Your task to perform on an android device: move a message to another label in the gmail app Image 0: 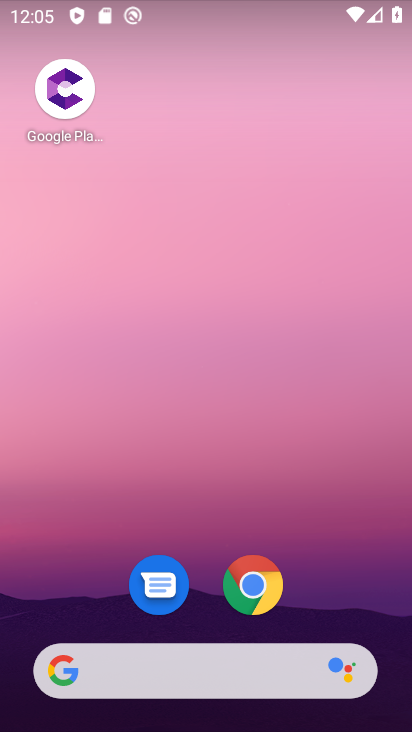
Step 0: drag from (203, 490) to (260, 25)
Your task to perform on an android device: move a message to another label in the gmail app Image 1: 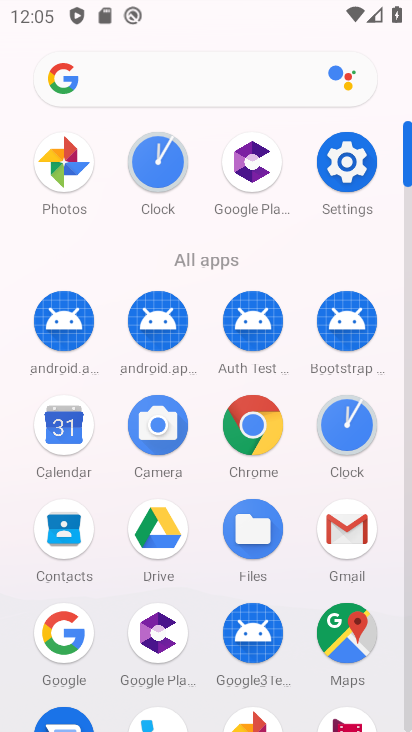
Step 1: click (340, 533)
Your task to perform on an android device: move a message to another label in the gmail app Image 2: 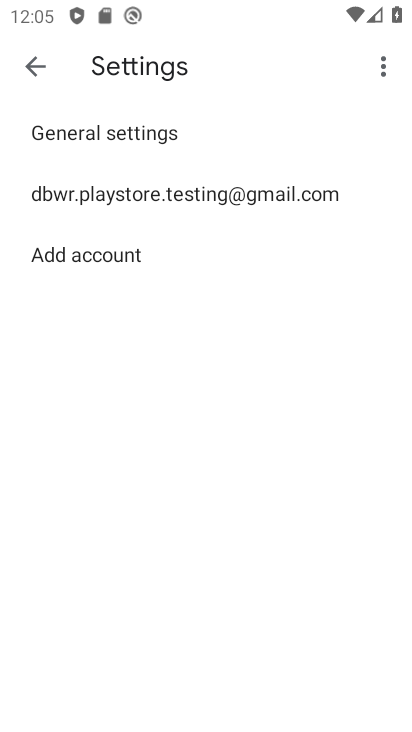
Step 2: click (41, 64)
Your task to perform on an android device: move a message to another label in the gmail app Image 3: 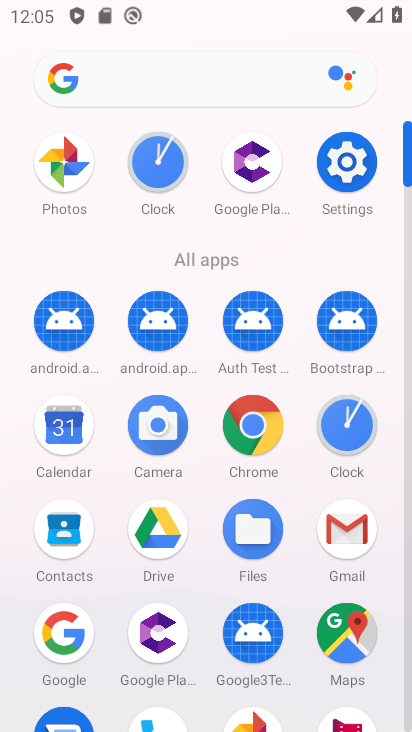
Step 3: click (335, 532)
Your task to perform on an android device: move a message to another label in the gmail app Image 4: 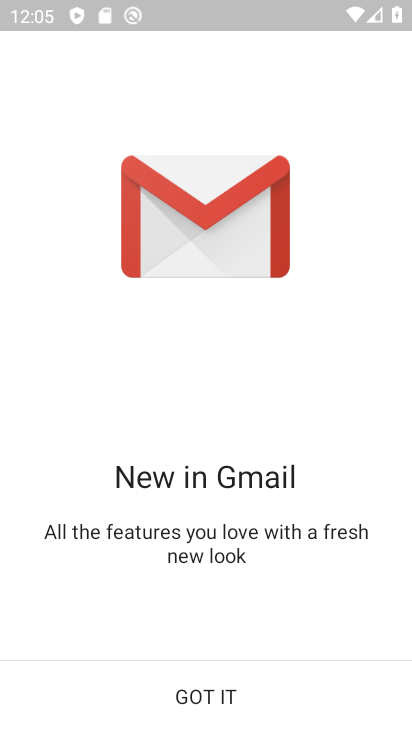
Step 4: click (232, 667)
Your task to perform on an android device: move a message to another label in the gmail app Image 5: 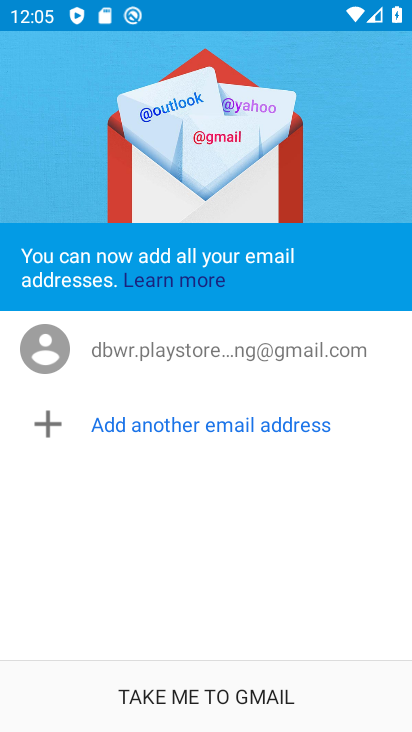
Step 5: click (233, 687)
Your task to perform on an android device: move a message to another label in the gmail app Image 6: 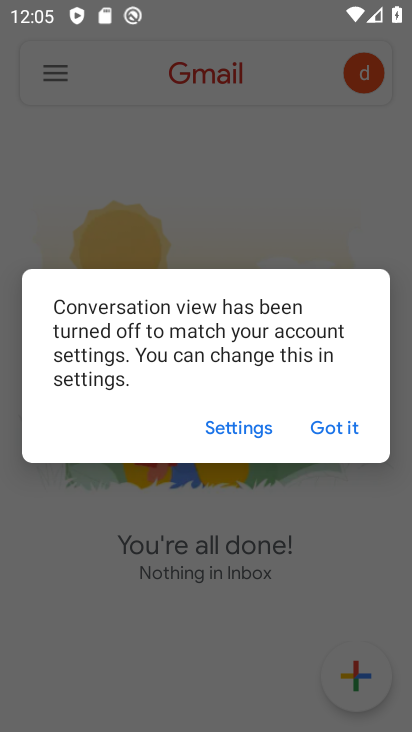
Step 6: click (340, 424)
Your task to perform on an android device: move a message to another label in the gmail app Image 7: 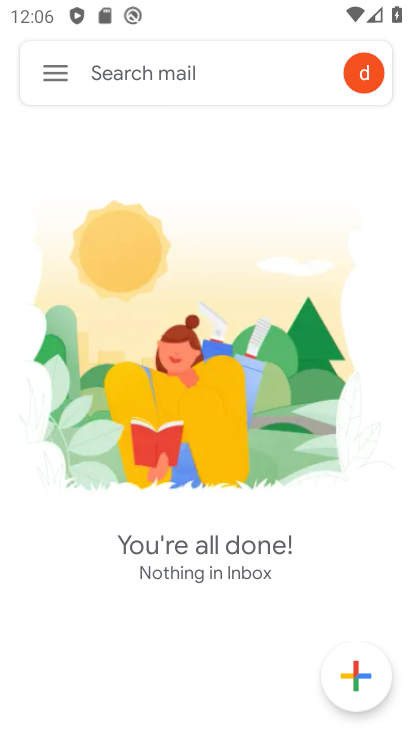
Step 7: click (55, 77)
Your task to perform on an android device: move a message to another label in the gmail app Image 8: 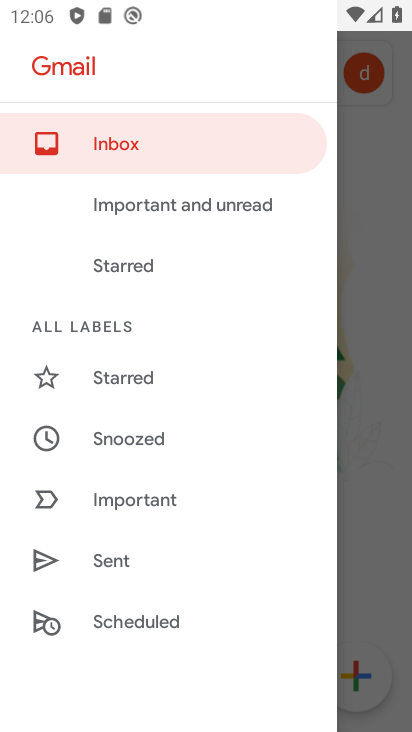
Step 8: drag from (159, 539) to (201, 202)
Your task to perform on an android device: move a message to another label in the gmail app Image 9: 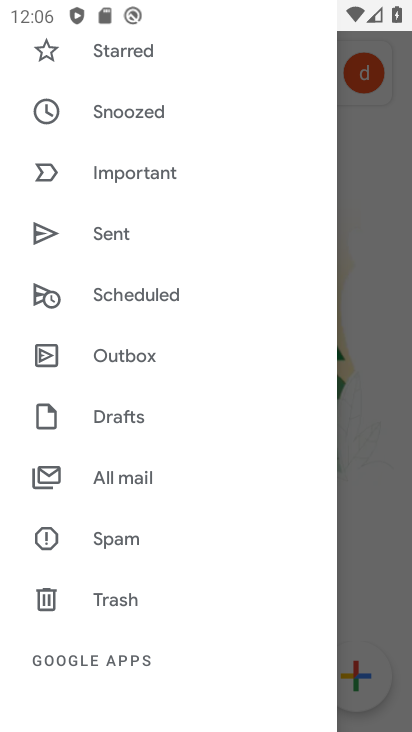
Step 9: click (162, 467)
Your task to perform on an android device: move a message to another label in the gmail app Image 10: 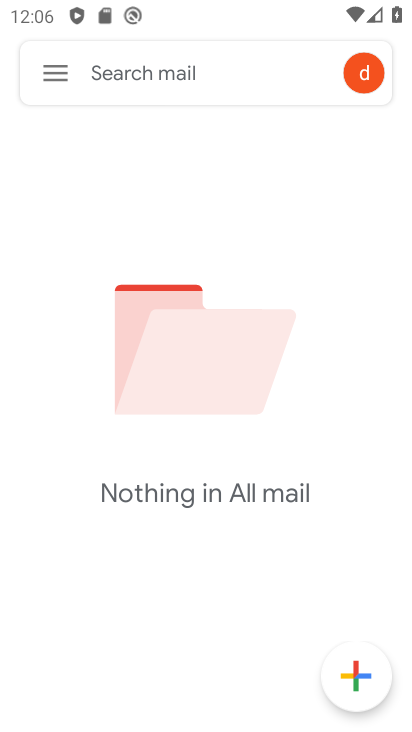
Step 10: task complete